Your task to perform on an android device: check google app version Image 0: 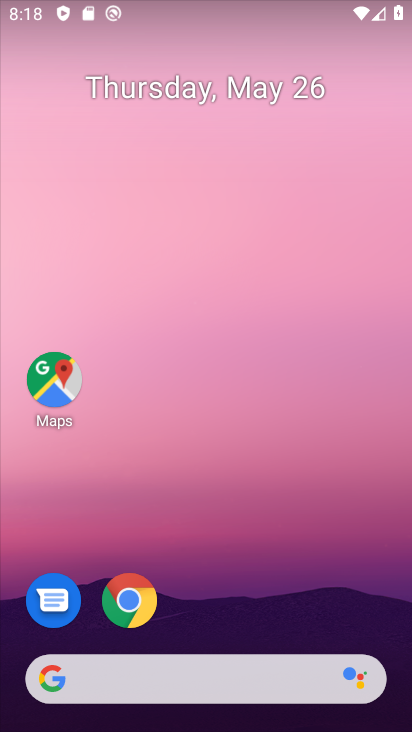
Step 0: click (165, 675)
Your task to perform on an android device: check google app version Image 1: 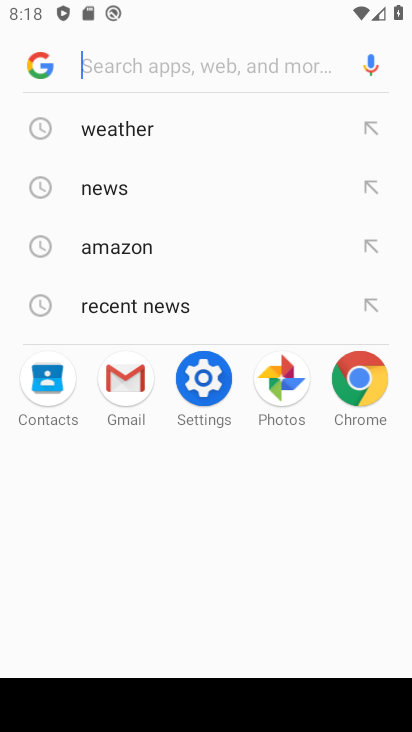
Step 1: click (33, 63)
Your task to perform on an android device: check google app version Image 2: 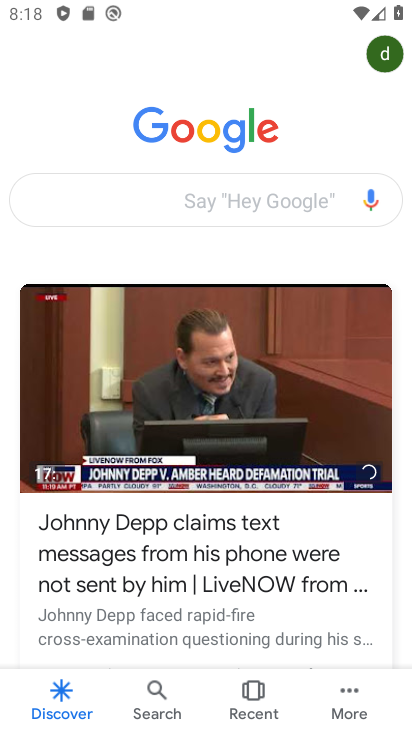
Step 2: click (345, 689)
Your task to perform on an android device: check google app version Image 3: 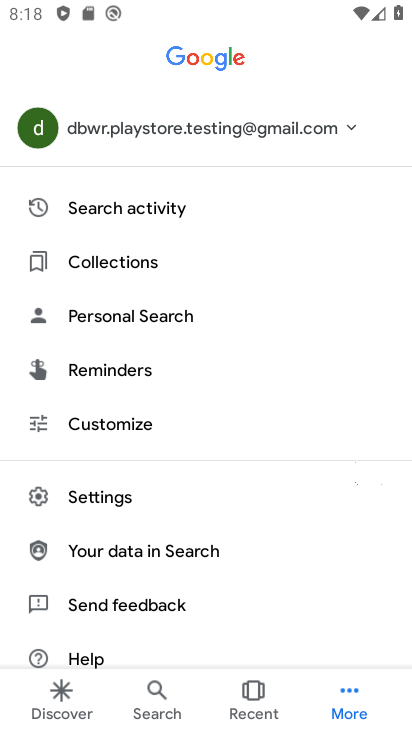
Step 3: click (111, 506)
Your task to perform on an android device: check google app version Image 4: 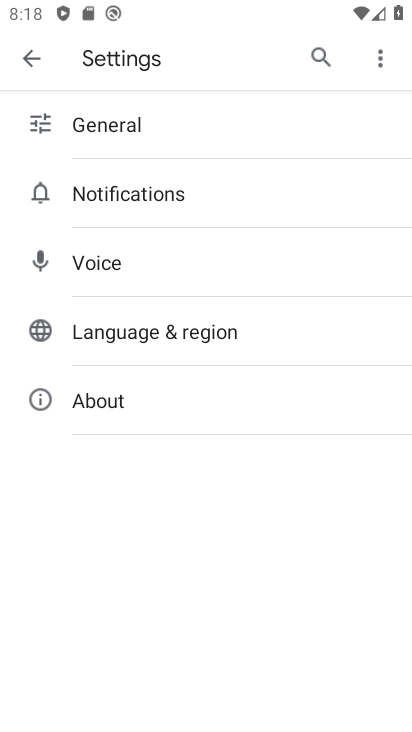
Step 4: click (139, 412)
Your task to perform on an android device: check google app version Image 5: 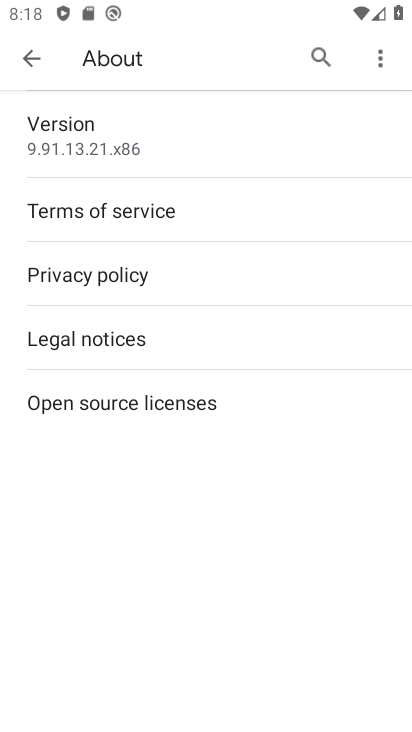
Step 5: click (93, 401)
Your task to perform on an android device: check google app version Image 6: 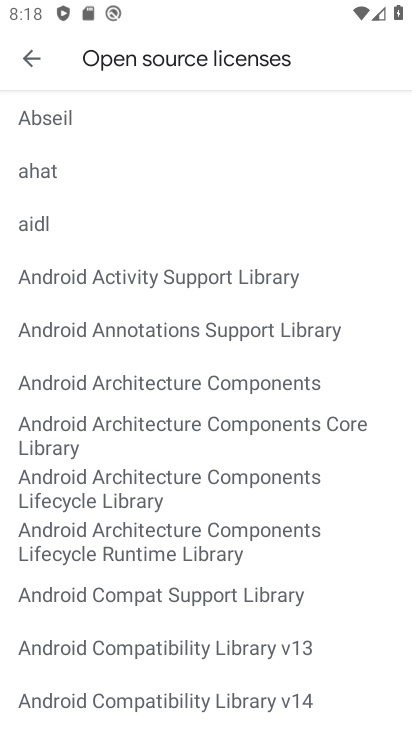
Step 6: click (37, 64)
Your task to perform on an android device: check google app version Image 7: 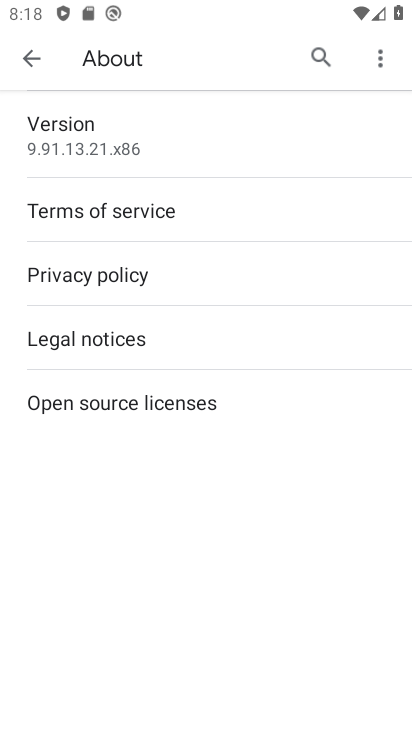
Step 7: click (174, 110)
Your task to perform on an android device: check google app version Image 8: 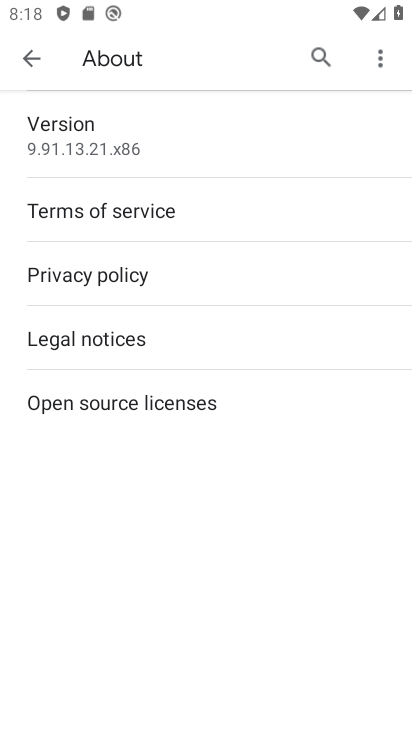
Step 8: task complete